Your task to perform on an android device: turn on wifi Image 0: 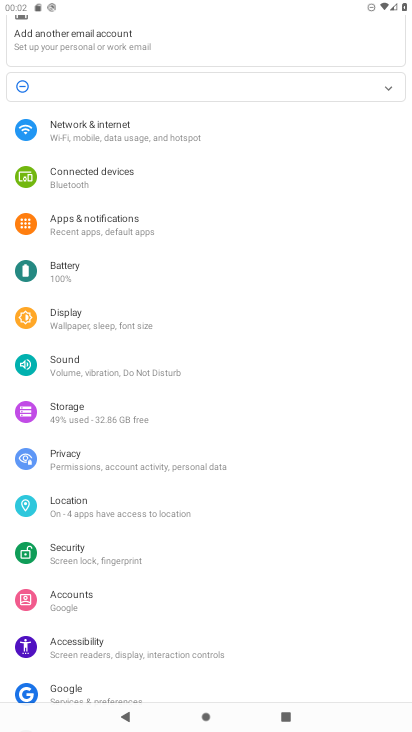
Step 0: drag from (138, 8) to (125, 494)
Your task to perform on an android device: turn on wifi Image 1: 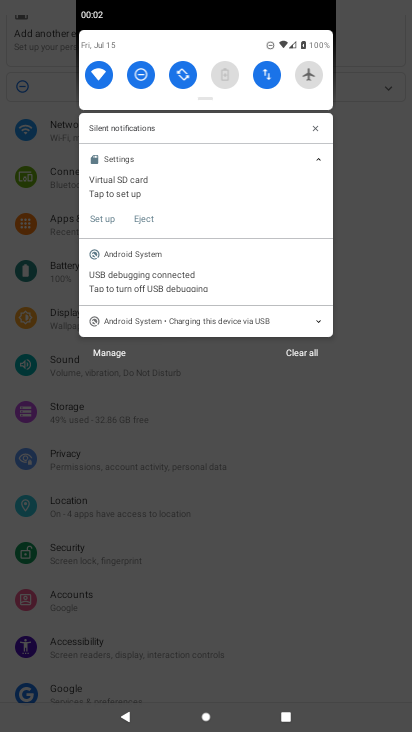
Step 1: task complete